Your task to perform on an android device: toggle wifi Image 0: 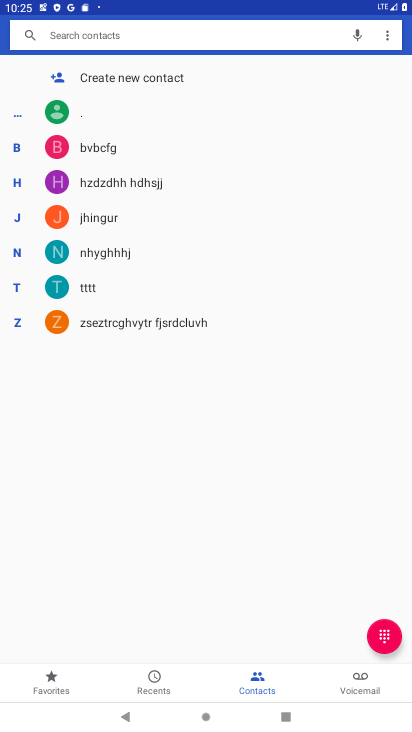
Step 0: press home button
Your task to perform on an android device: toggle wifi Image 1: 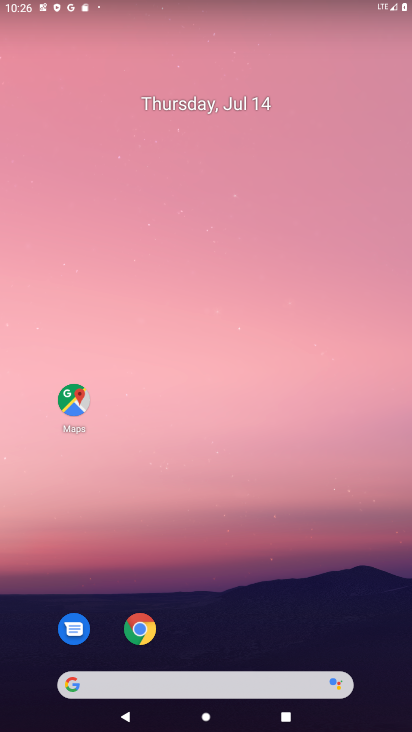
Step 1: drag from (145, 25) to (92, 473)
Your task to perform on an android device: toggle wifi Image 2: 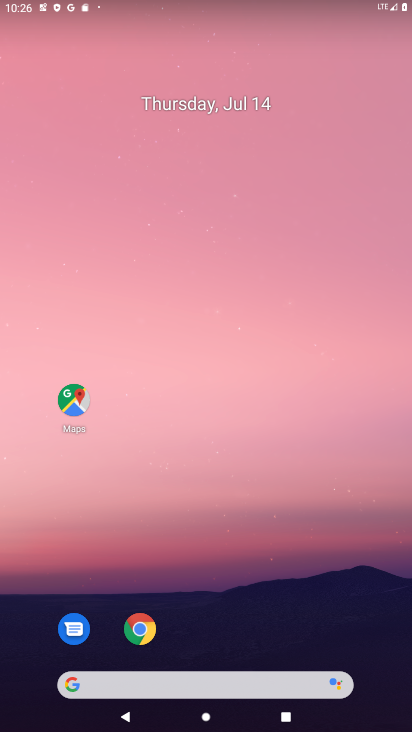
Step 2: drag from (97, 0) to (94, 499)
Your task to perform on an android device: toggle wifi Image 3: 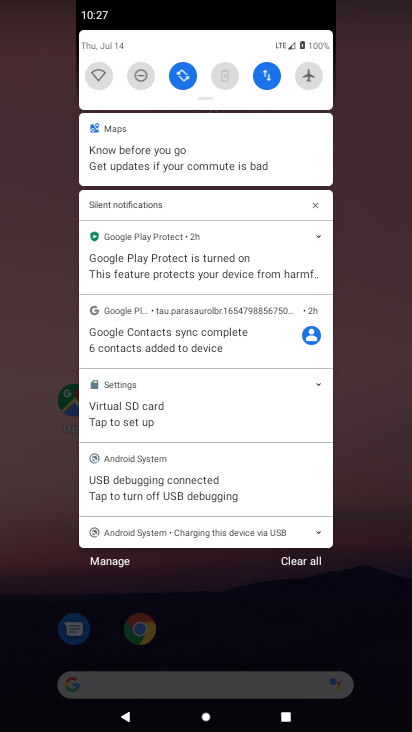
Step 3: click (101, 81)
Your task to perform on an android device: toggle wifi Image 4: 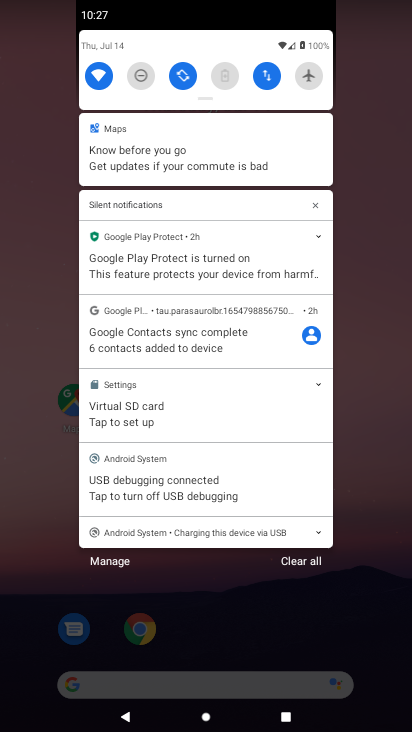
Step 4: task complete